Your task to perform on an android device: see tabs open on other devices in the chrome app Image 0: 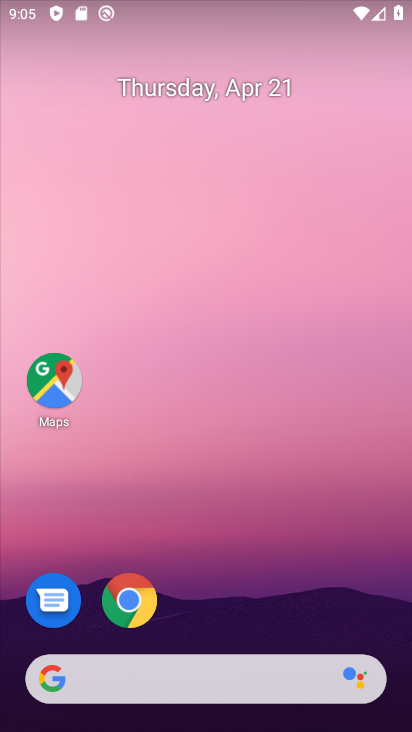
Step 0: click (127, 599)
Your task to perform on an android device: see tabs open on other devices in the chrome app Image 1: 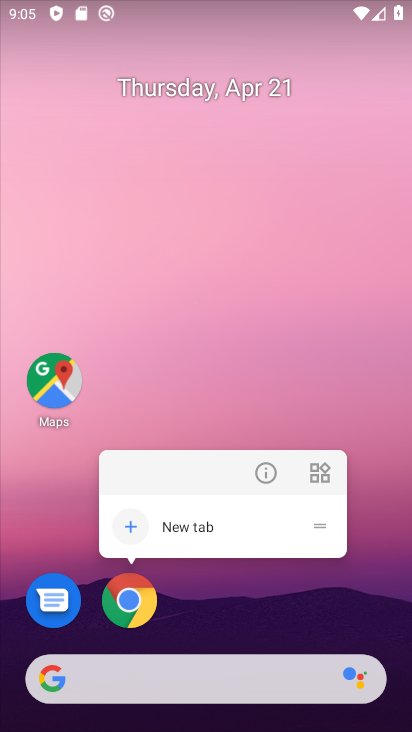
Step 1: click (127, 601)
Your task to perform on an android device: see tabs open on other devices in the chrome app Image 2: 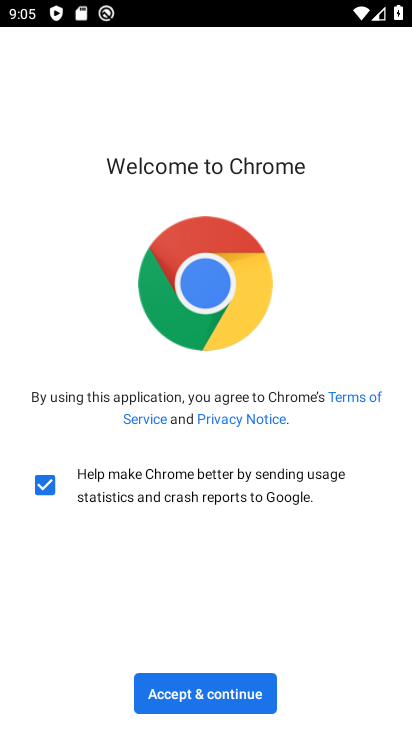
Step 2: click (214, 696)
Your task to perform on an android device: see tabs open on other devices in the chrome app Image 3: 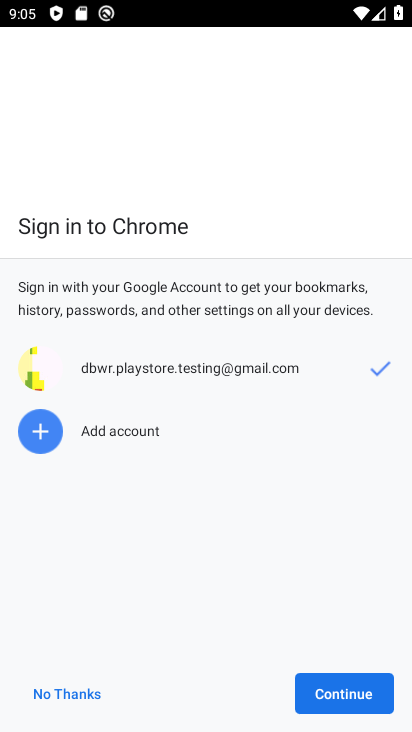
Step 3: click (329, 692)
Your task to perform on an android device: see tabs open on other devices in the chrome app Image 4: 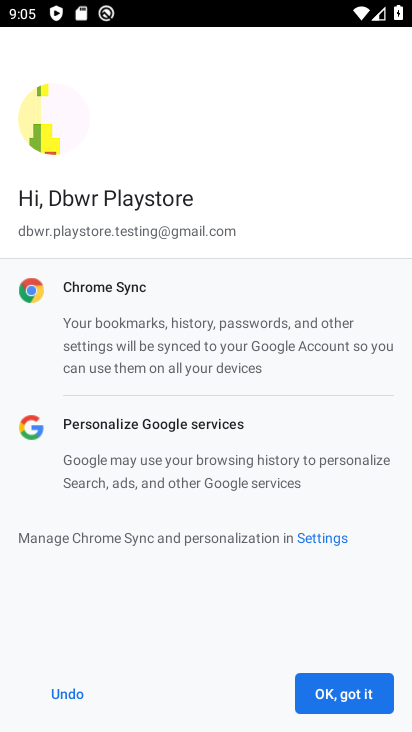
Step 4: click (326, 689)
Your task to perform on an android device: see tabs open on other devices in the chrome app Image 5: 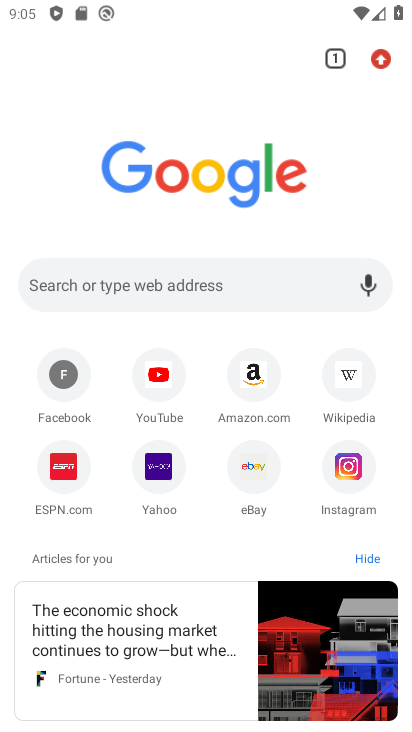
Step 5: click (335, 61)
Your task to perform on an android device: see tabs open on other devices in the chrome app Image 6: 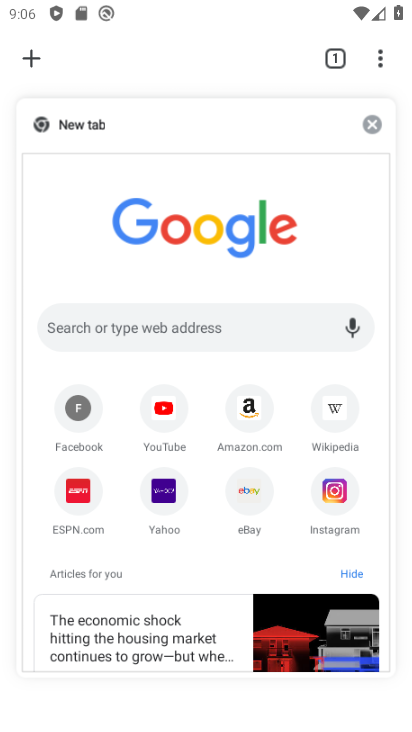
Step 6: task complete